Your task to perform on an android device: toggle translation in the chrome app Image 0: 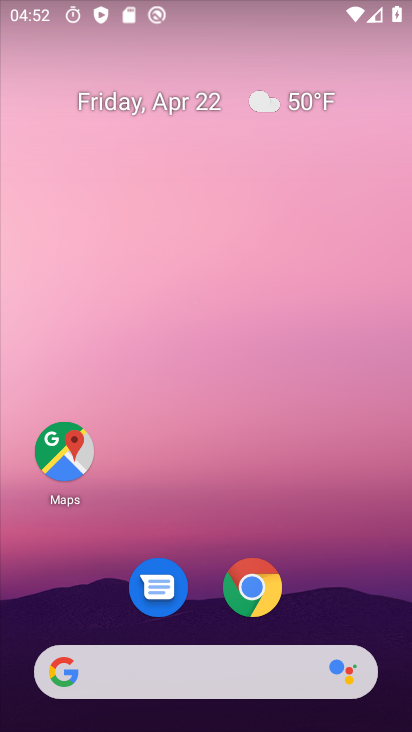
Step 0: click (253, 588)
Your task to perform on an android device: toggle translation in the chrome app Image 1: 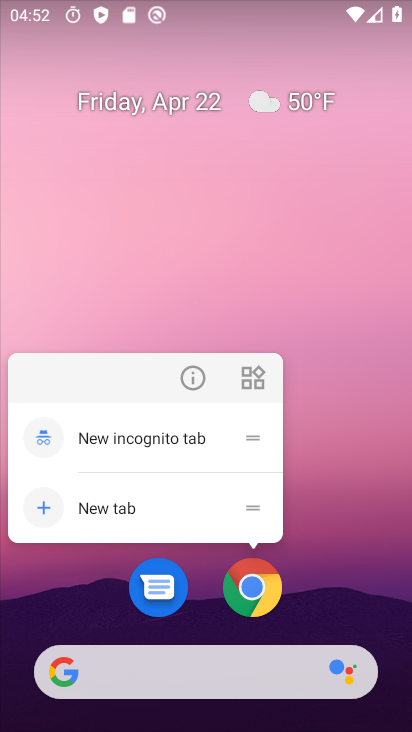
Step 1: click (242, 591)
Your task to perform on an android device: toggle translation in the chrome app Image 2: 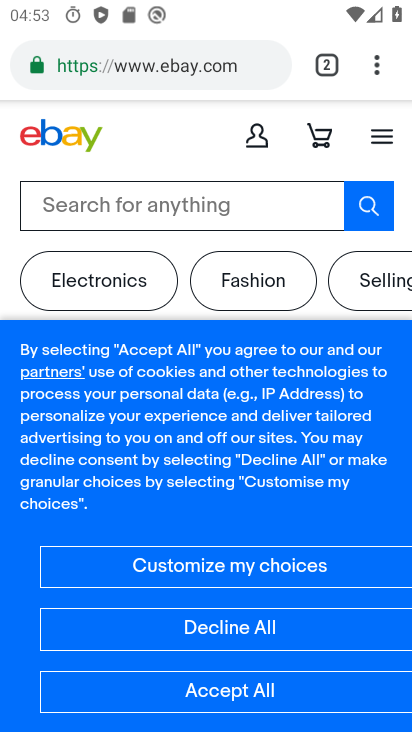
Step 2: click (379, 63)
Your task to perform on an android device: toggle translation in the chrome app Image 3: 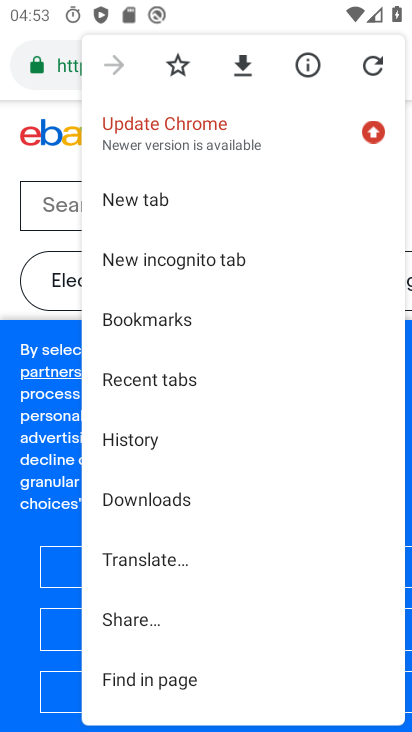
Step 3: drag from (249, 636) to (251, 255)
Your task to perform on an android device: toggle translation in the chrome app Image 4: 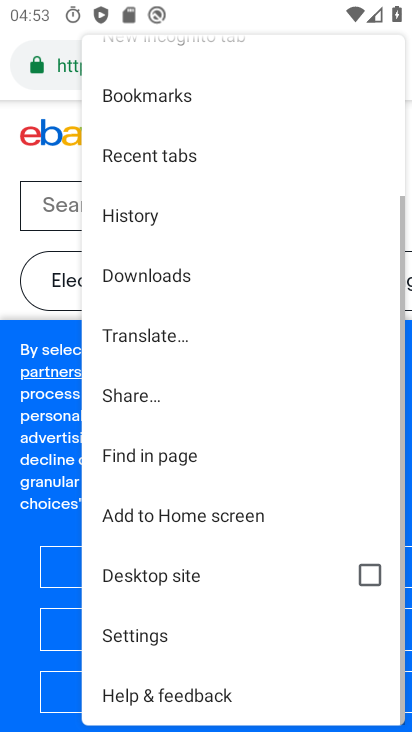
Step 4: click (143, 638)
Your task to perform on an android device: toggle translation in the chrome app Image 5: 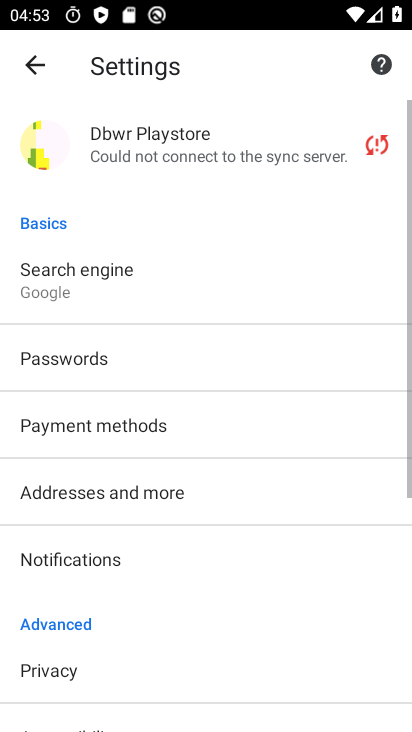
Step 5: drag from (170, 667) to (179, 291)
Your task to perform on an android device: toggle translation in the chrome app Image 6: 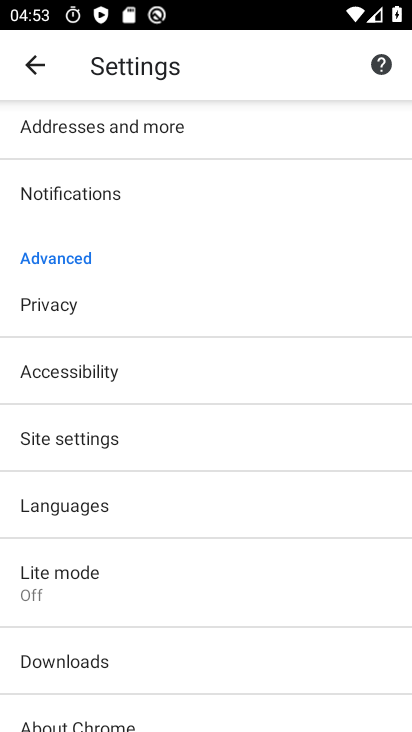
Step 6: click (85, 505)
Your task to perform on an android device: toggle translation in the chrome app Image 7: 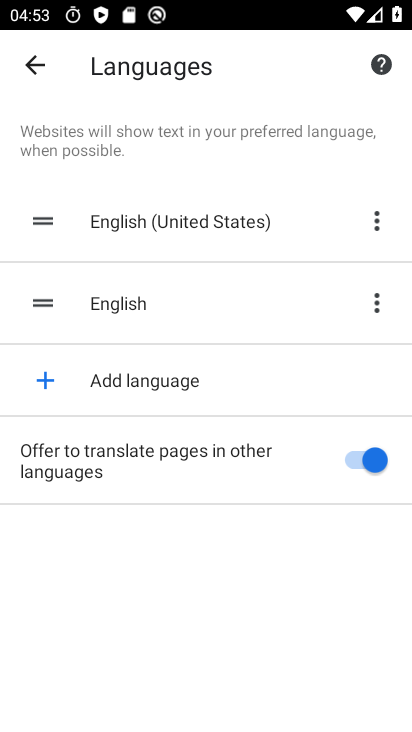
Step 7: click (368, 463)
Your task to perform on an android device: toggle translation in the chrome app Image 8: 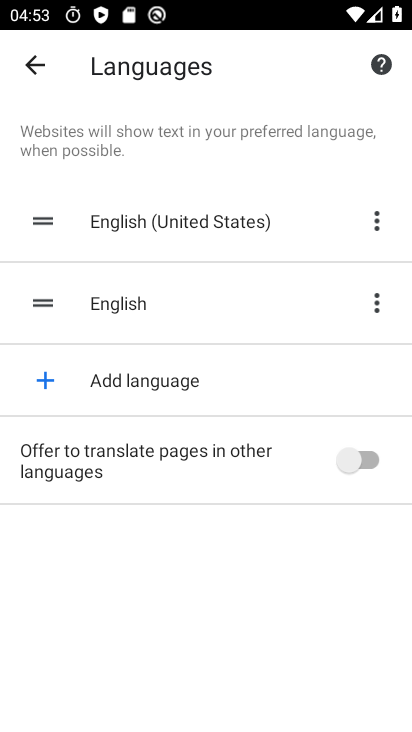
Step 8: task complete